Your task to perform on an android device: Open network settings Image 0: 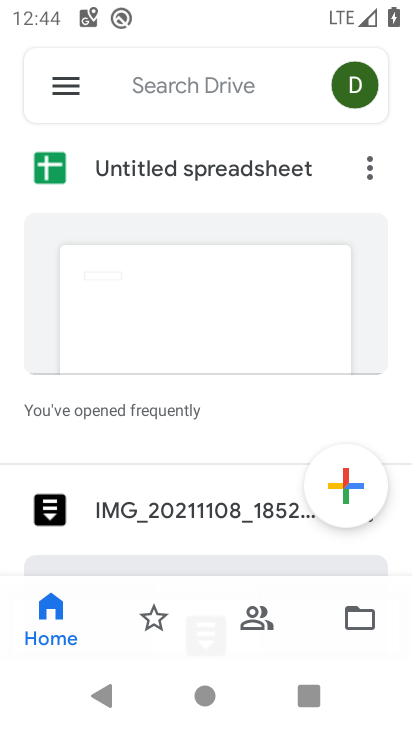
Step 0: press back button
Your task to perform on an android device: Open network settings Image 1: 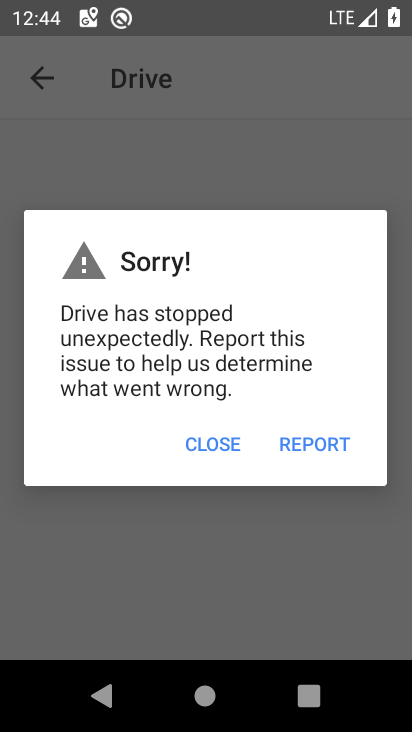
Step 1: click (229, 453)
Your task to perform on an android device: Open network settings Image 2: 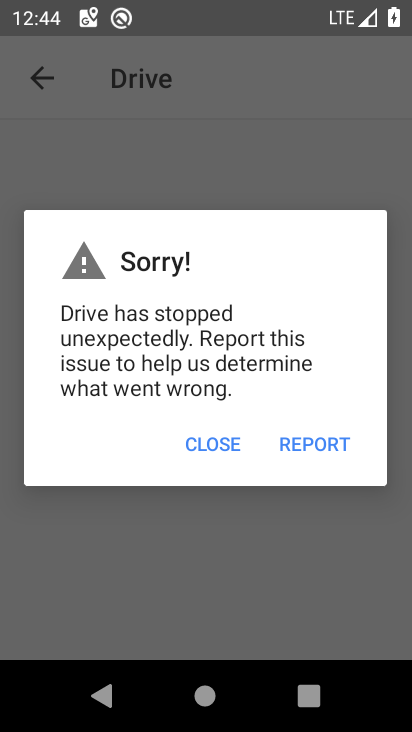
Step 2: click (234, 440)
Your task to perform on an android device: Open network settings Image 3: 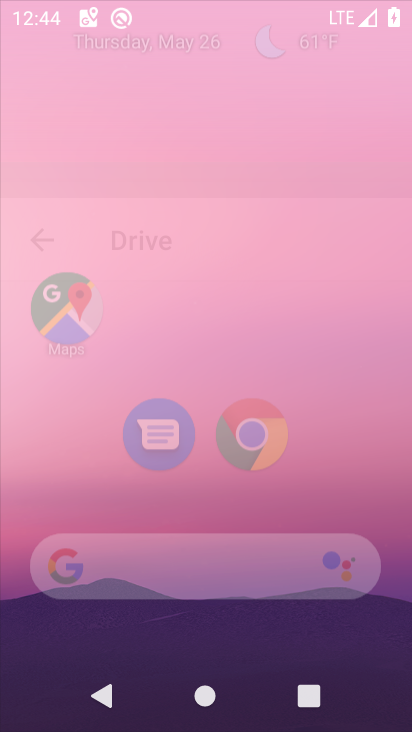
Step 3: click (234, 440)
Your task to perform on an android device: Open network settings Image 4: 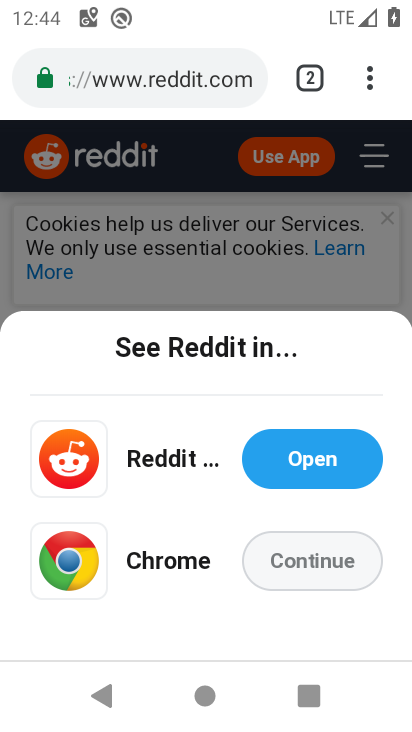
Step 4: press back button
Your task to perform on an android device: Open network settings Image 5: 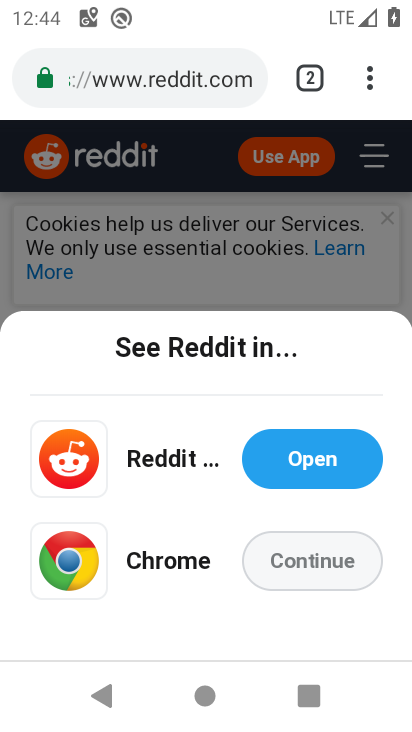
Step 5: press back button
Your task to perform on an android device: Open network settings Image 6: 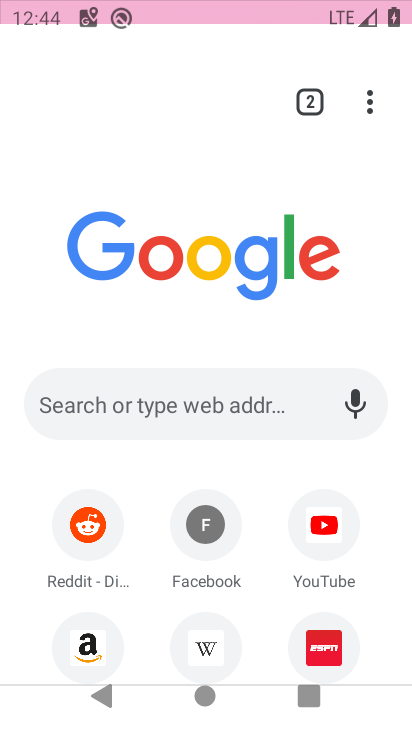
Step 6: press back button
Your task to perform on an android device: Open network settings Image 7: 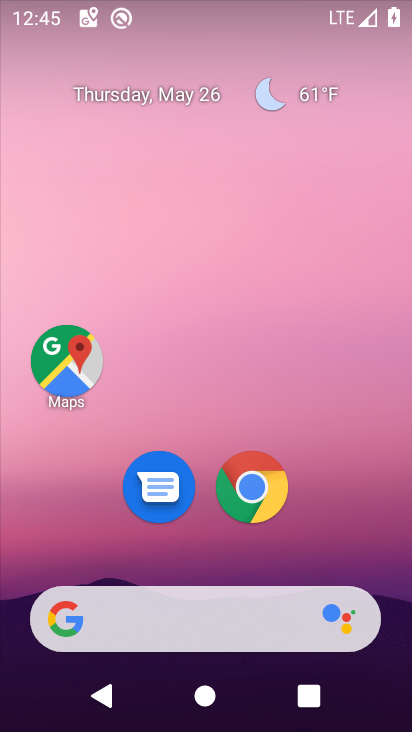
Step 7: drag from (277, 649) to (238, 178)
Your task to perform on an android device: Open network settings Image 8: 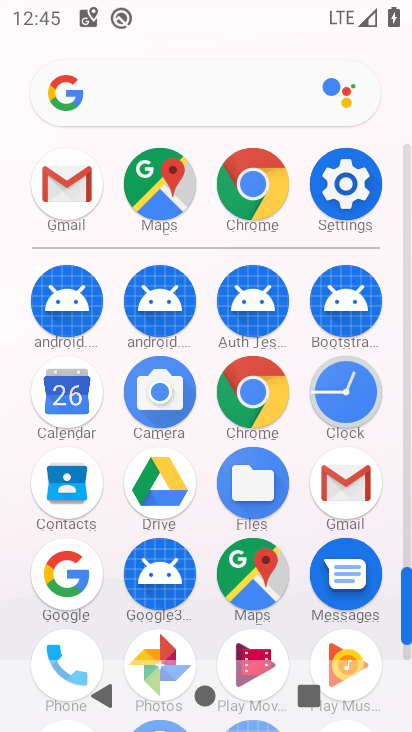
Step 8: click (347, 169)
Your task to perform on an android device: Open network settings Image 9: 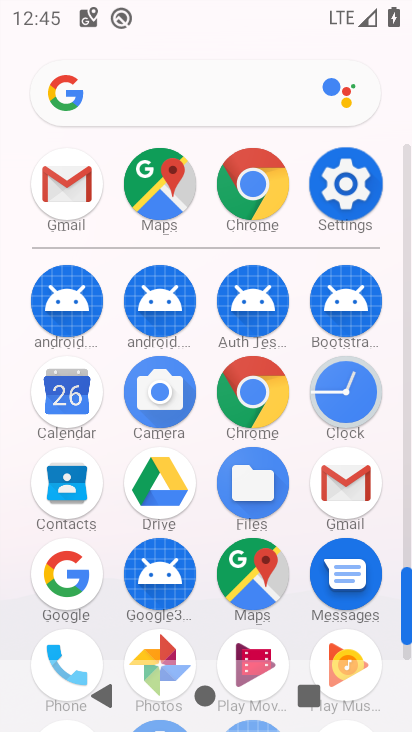
Step 9: click (347, 169)
Your task to perform on an android device: Open network settings Image 10: 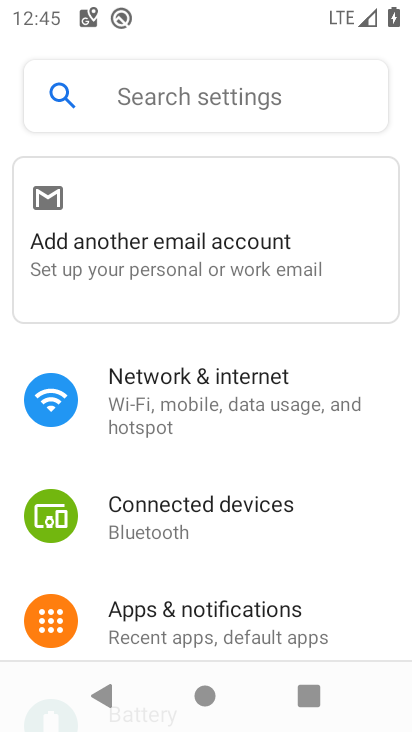
Step 10: click (154, 404)
Your task to perform on an android device: Open network settings Image 11: 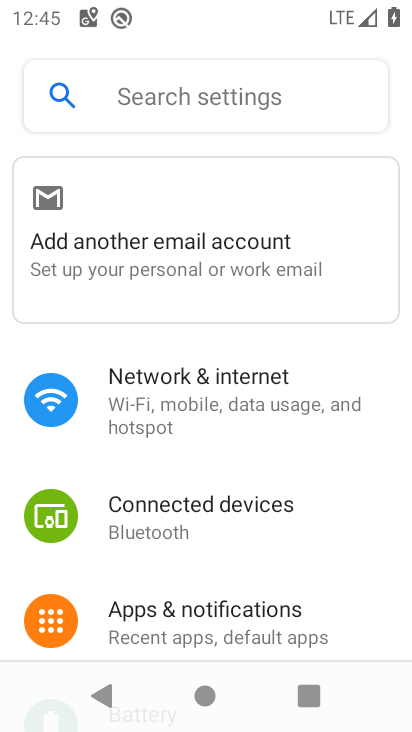
Step 11: click (154, 404)
Your task to perform on an android device: Open network settings Image 12: 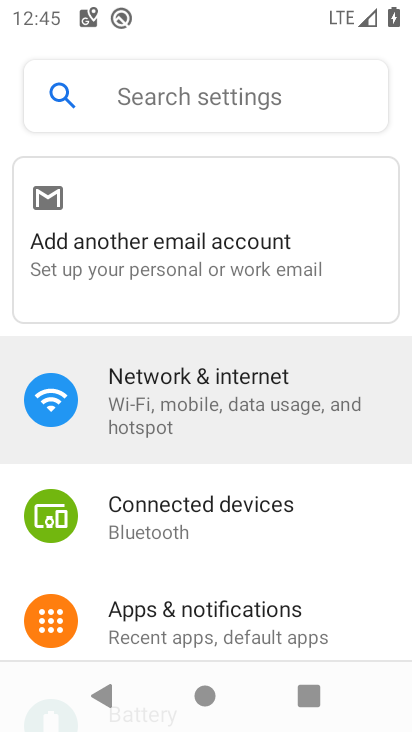
Step 12: click (154, 403)
Your task to perform on an android device: Open network settings Image 13: 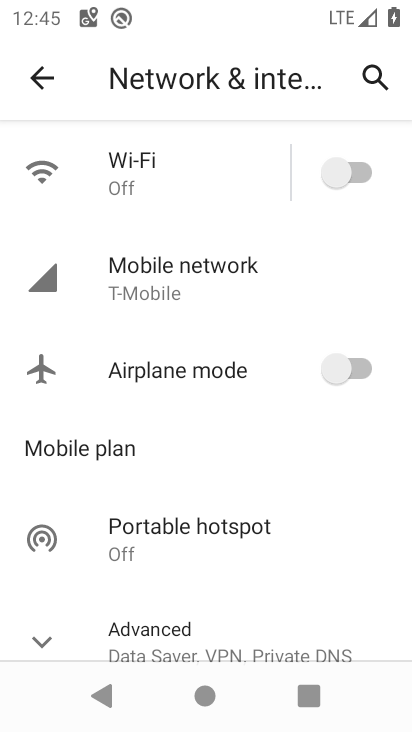
Step 13: task complete